Your task to perform on an android device: Open Google Image 0: 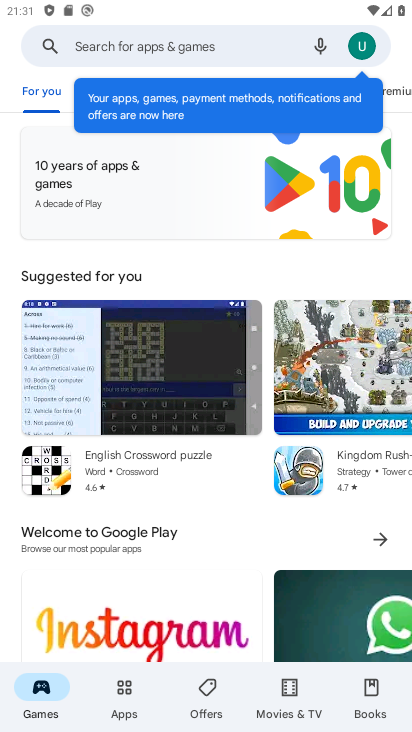
Step 0: press home button
Your task to perform on an android device: Open Google Image 1: 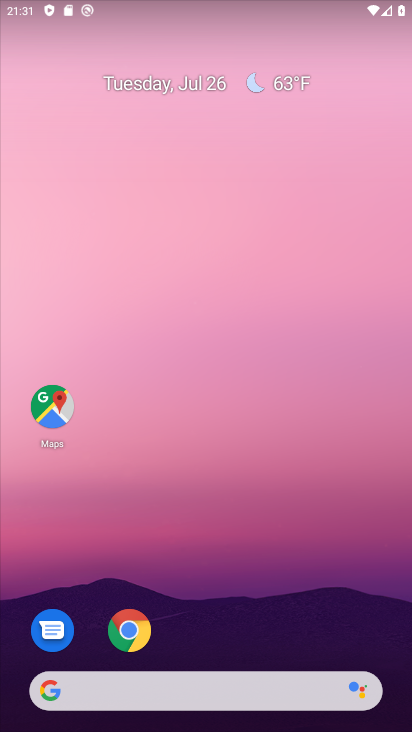
Step 1: drag from (251, 617) to (251, 193)
Your task to perform on an android device: Open Google Image 2: 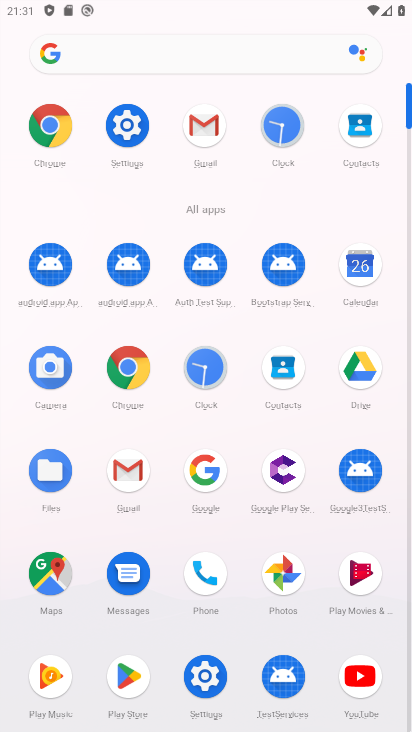
Step 2: click (203, 462)
Your task to perform on an android device: Open Google Image 3: 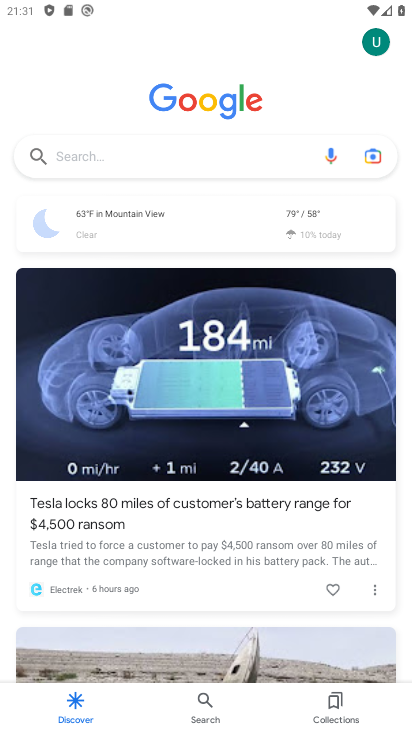
Step 3: task complete